Your task to perform on an android device: Go to settings Image 0: 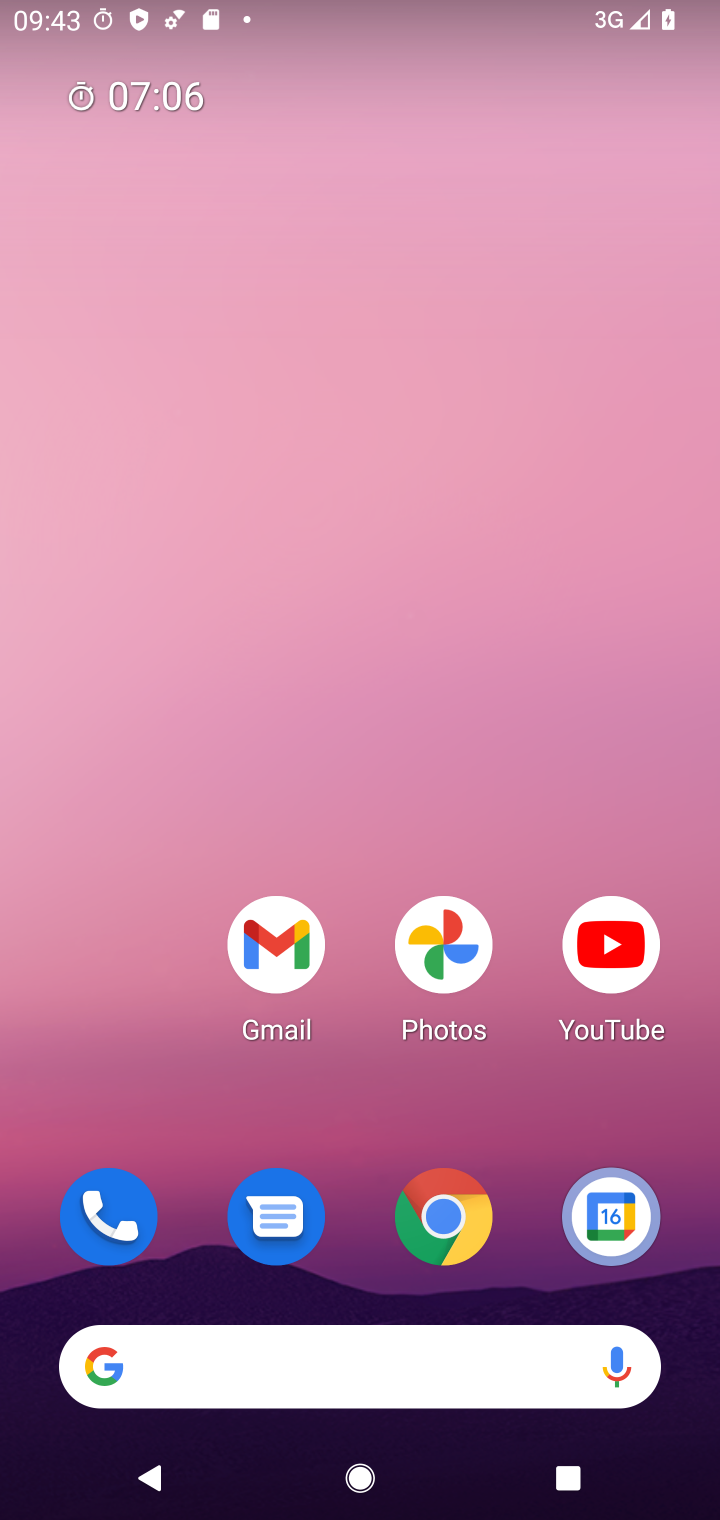
Step 0: drag from (354, 1246) to (287, 384)
Your task to perform on an android device: Go to settings Image 1: 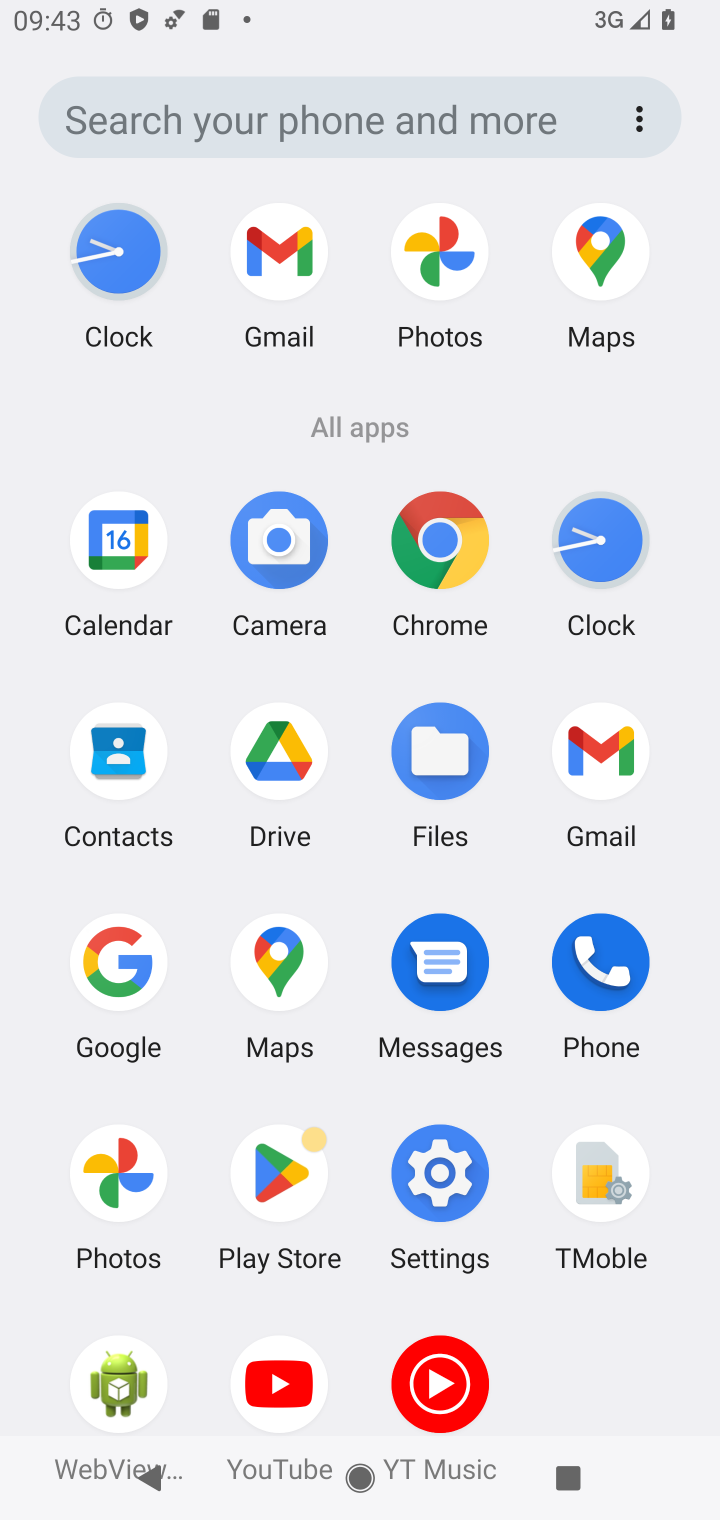
Step 1: click (444, 1173)
Your task to perform on an android device: Go to settings Image 2: 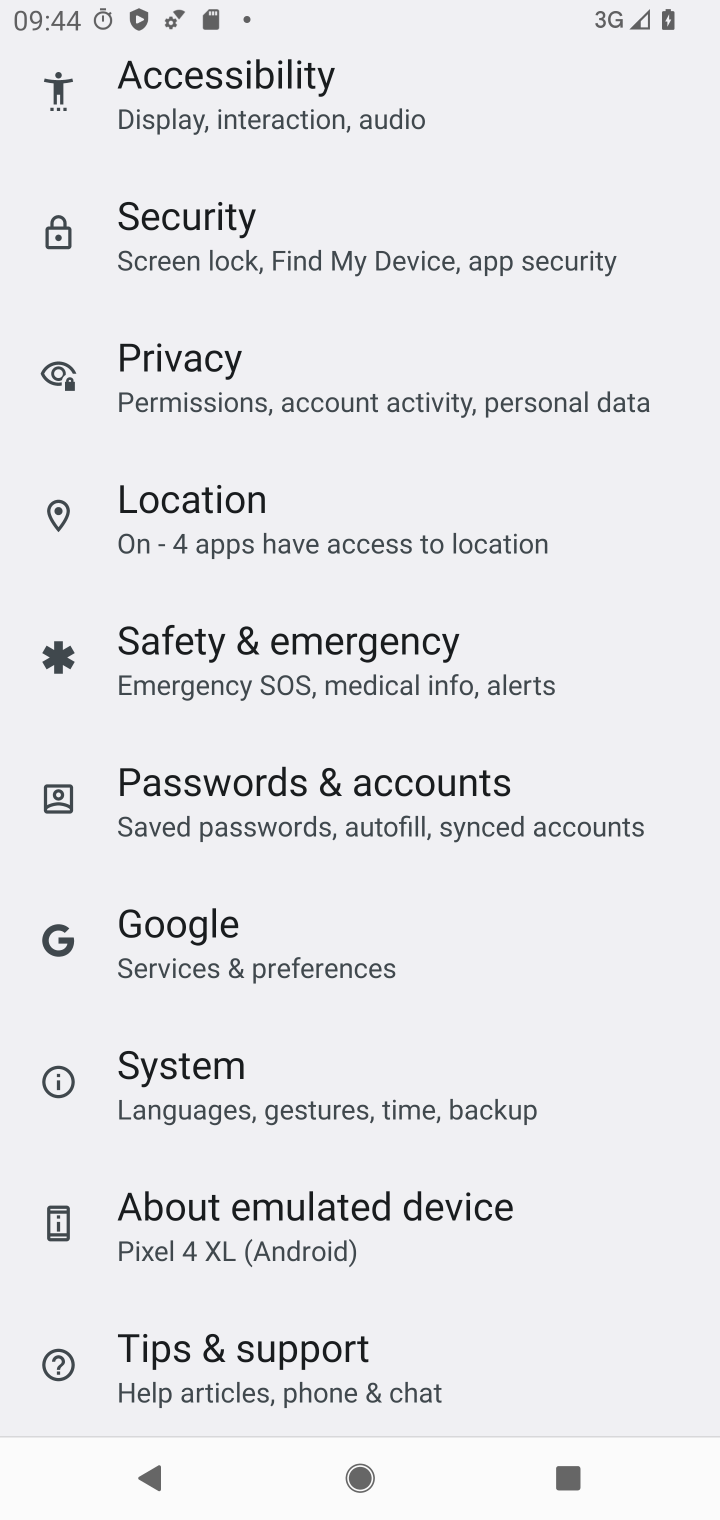
Step 2: task complete